Your task to perform on an android device: Open sound settings Image 0: 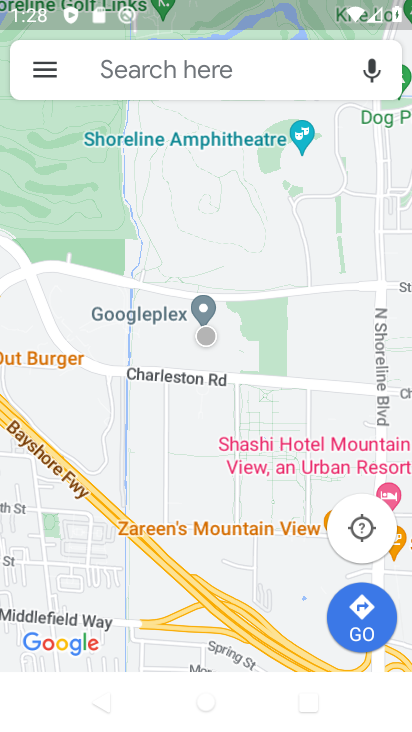
Step 0: press home button
Your task to perform on an android device: Open sound settings Image 1: 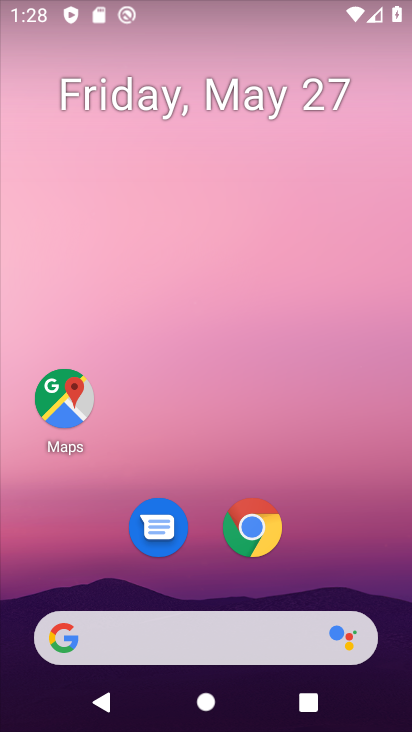
Step 1: drag from (173, 579) to (192, 125)
Your task to perform on an android device: Open sound settings Image 2: 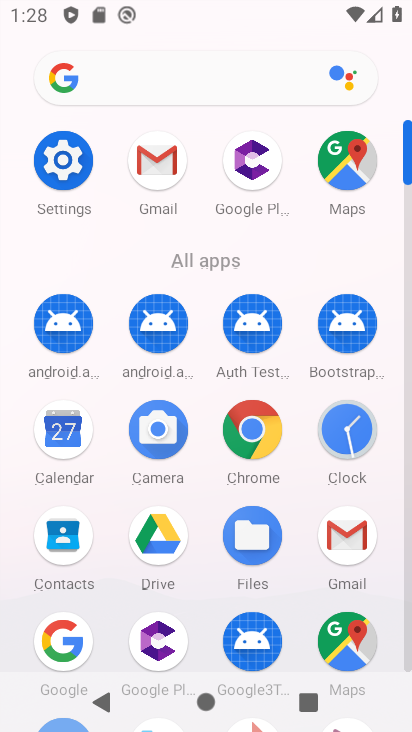
Step 2: click (66, 157)
Your task to perform on an android device: Open sound settings Image 3: 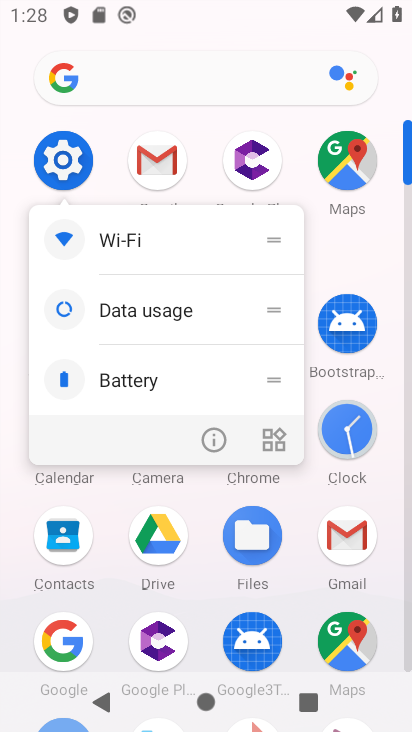
Step 3: click (64, 159)
Your task to perform on an android device: Open sound settings Image 4: 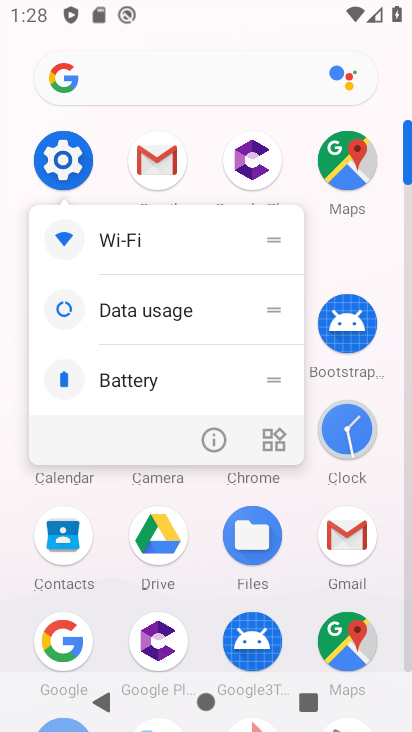
Step 4: click (65, 161)
Your task to perform on an android device: Open sound settings Image 5: 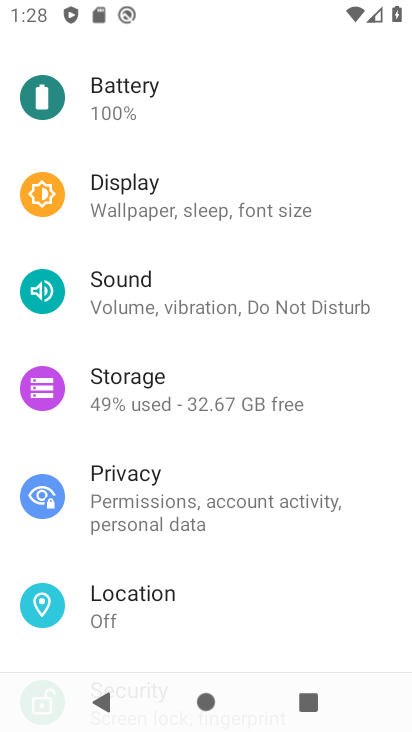
Step 5: click (183, 296)
Your task to perform on an android device: Open sound settings Image 6: 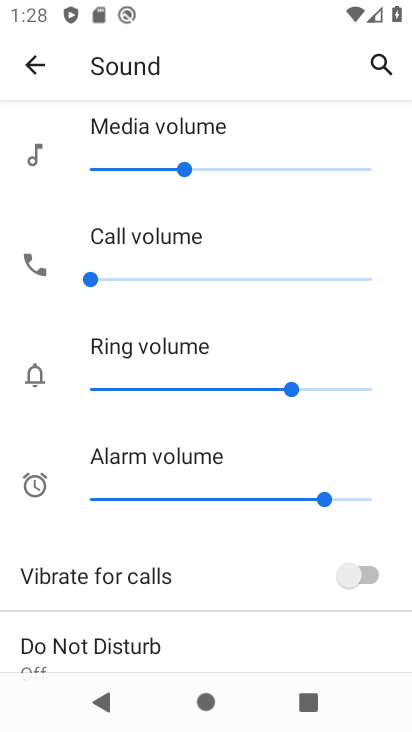
Step 6: task complete